Your task to perform on an android device: Go to wifi settings Image 0: 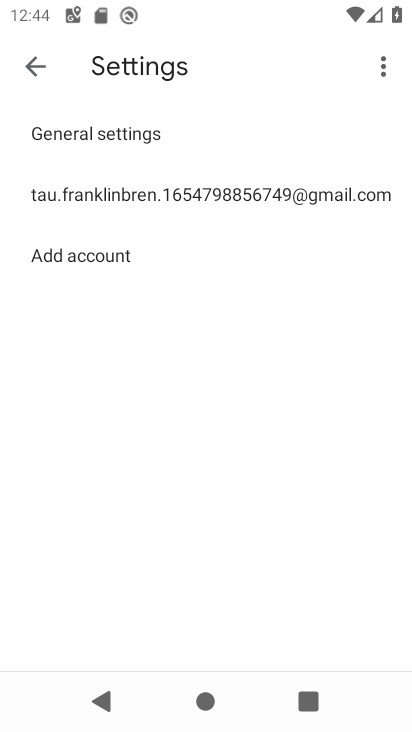
Step 0: press home button
Your task to perform on an android device: Go to wifi settings Image 1: 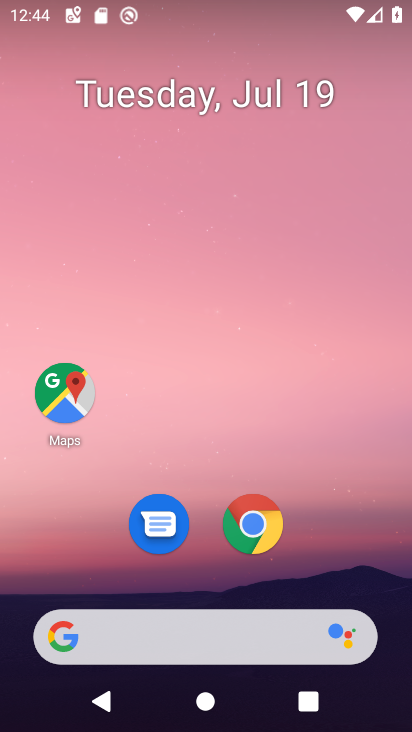
Step 1: drag from (336, 538) to (329, 0)
Your task to perform on an android device: Go to wifi settings Image 2: 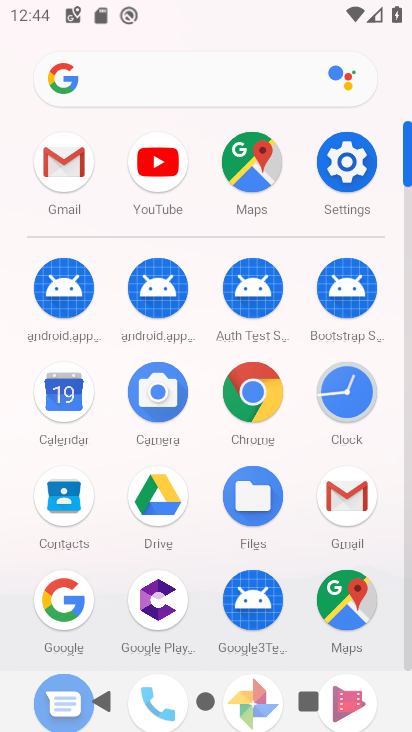
Step 2: click (347, 166)
Your task to perform on an android device: Go to wifi settings Image 3: 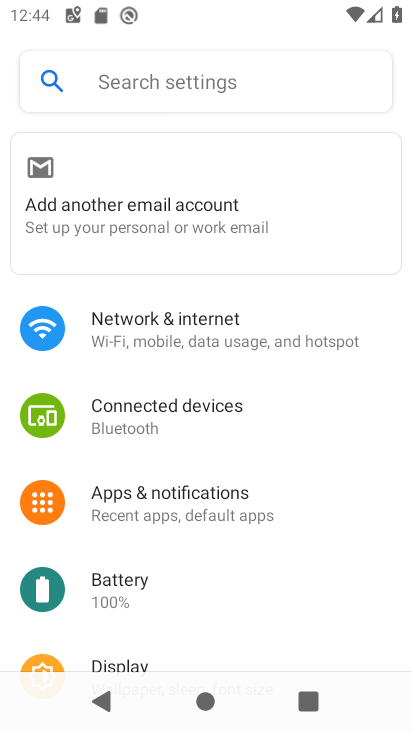
Step 3: click (211, 318)
Your task to perform on an android device: Go to wifi settings Image 4: 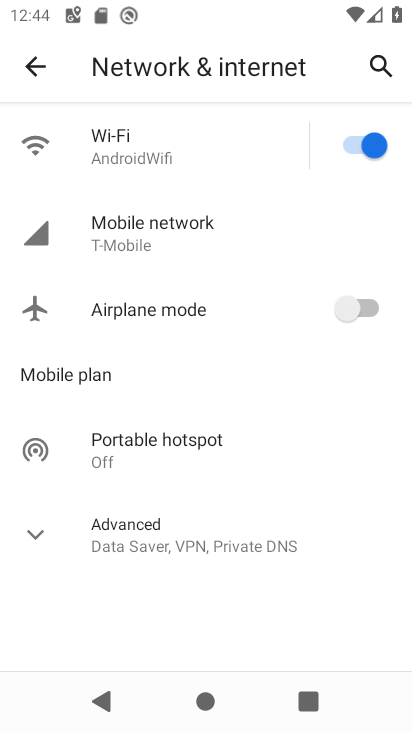
Step 4: click (156, 139)
Your task to perform on an android device: Go to wifi settings Image 5: 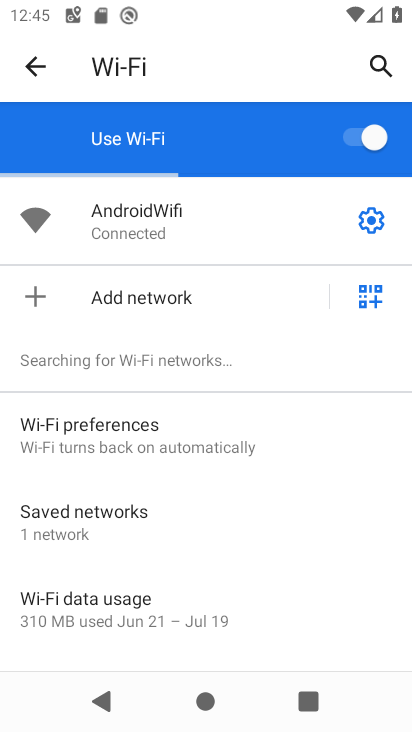
Step 5: task complete